Your task to perform on an android device: turn on sleep mode Image 0: 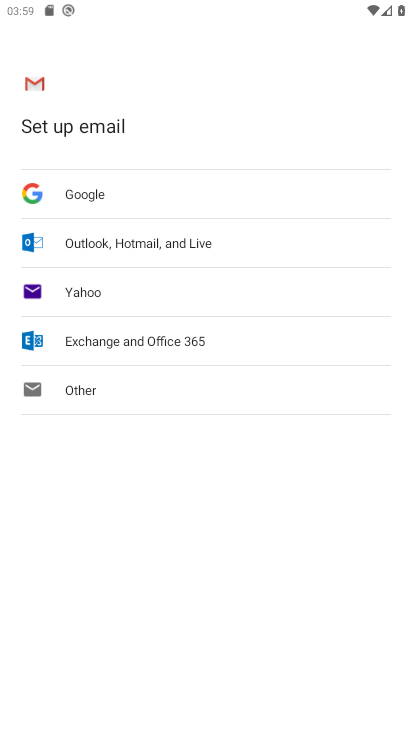
Step 0: press home button
Your task to perform on an android device: turn on sleep mode Image 1: 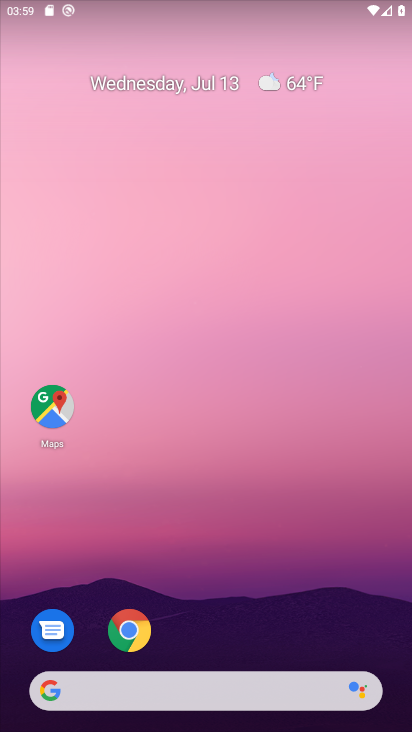
Step 1: drag from (221, 6) to (232, 626)
Your task to perform on an android device: turn on sleep mode Image 2: 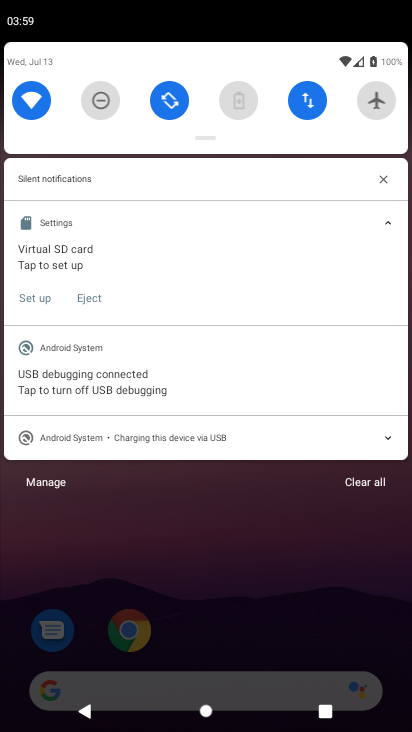
Step 2: drag from (189, 70) to (239, 654)
Your task to perform on an android device: turn on sleep mode Image 3: 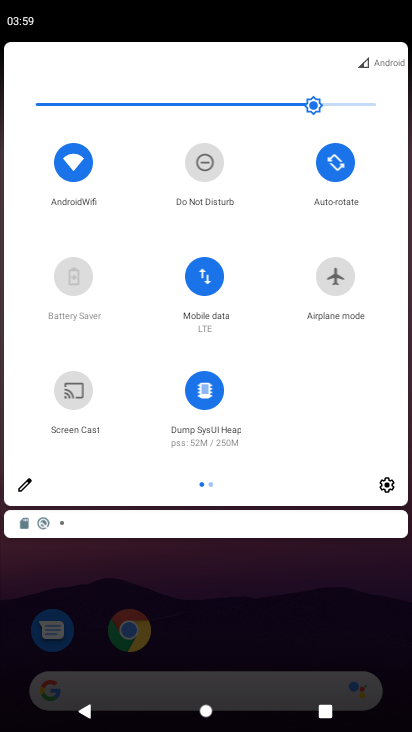
Step 3: click (392, 485)
Your task to perform on an android device: turn on sleep mode Image 4: 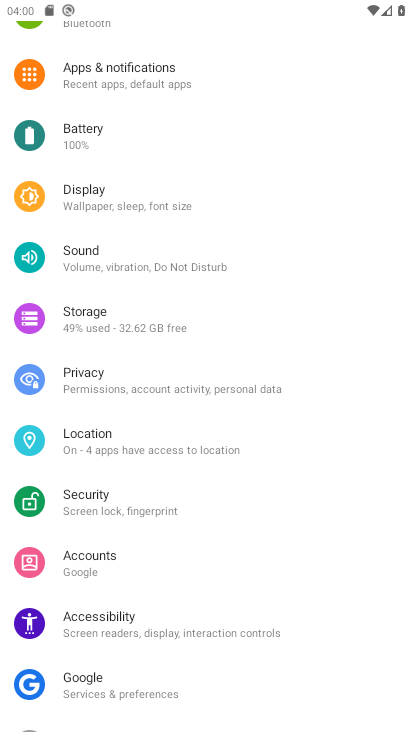
Step 4: task complete